Your task to perform on an android device: move an email to a new category in the gmail app Image 0: 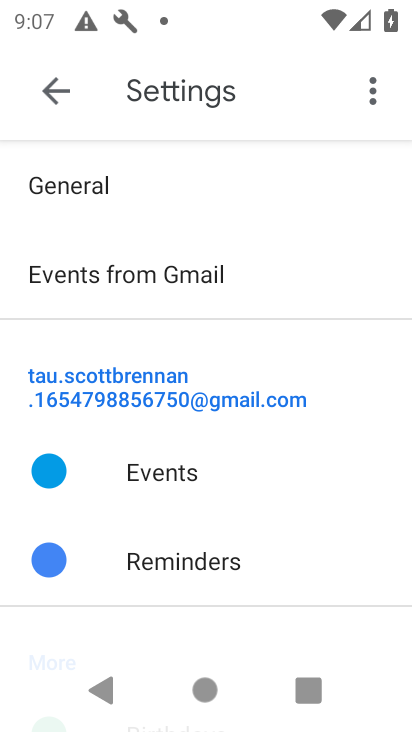
Step 0: click (60, 105)
Your task to perform on an android device: move an email to a new category in the gmail app Image 1: 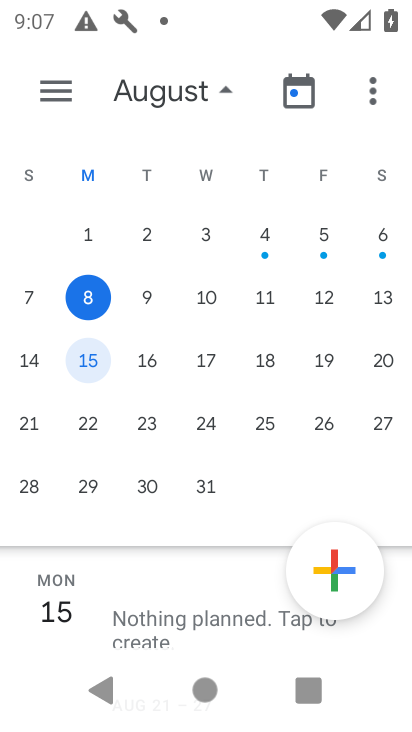
Step 1: press back button
Your task to perform on an android device: move an email to a new category in the gmail app Image 2: 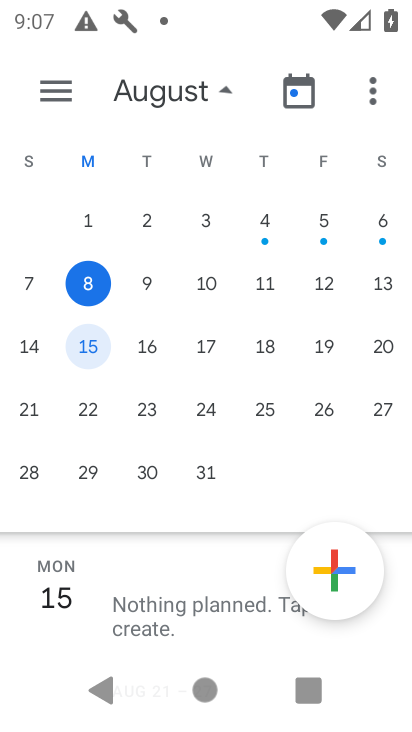
Step 2: press back button
Your task to perform on an android device: move an email to a new category in the gmail app Image 3: 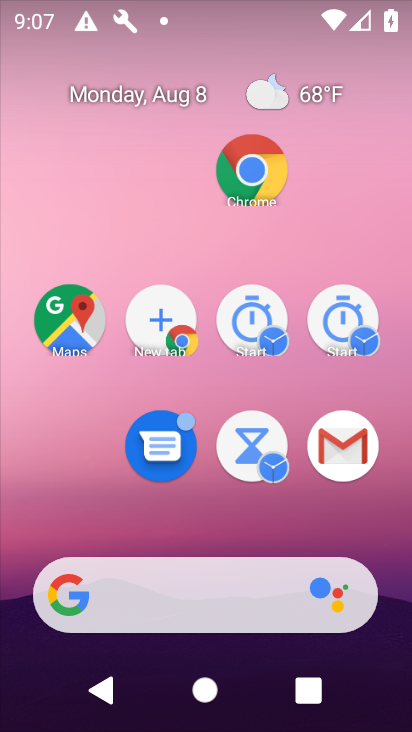
Step 3: drag from (213, 510) to (150, 70)
Your task to perform on an android device: move an email to a new category in the gmail app Image 4: 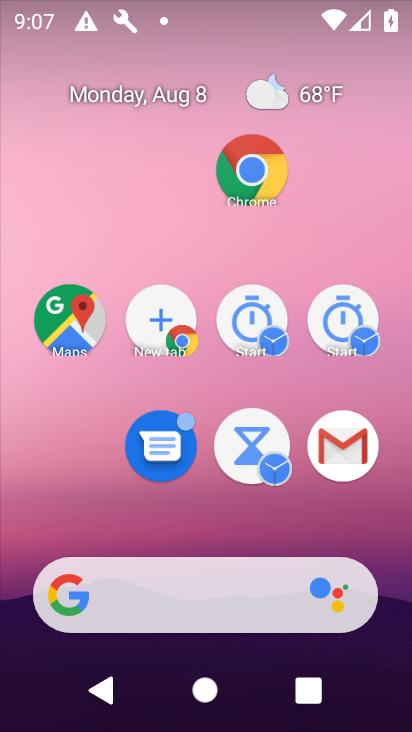
Step 4: drag from (250, 394) to (227, 187)
Your task to perform on an android device: move an email to a new category in the gmail app Image 5: 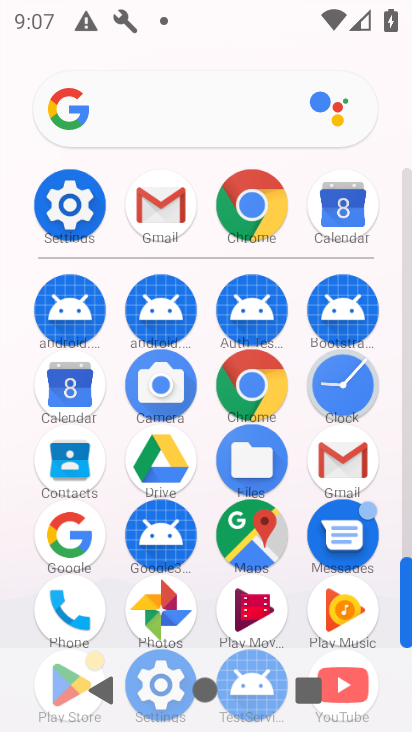
Step 5: click (342, 454)
Your task to perform on an android device: move an email to a new category in the gmail app Image 6: 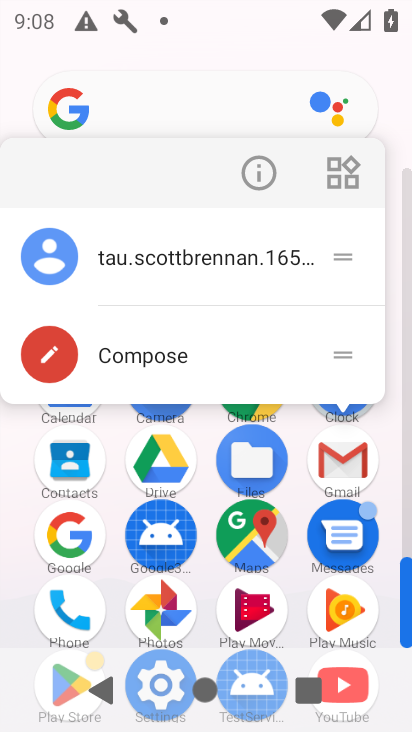
Step 6: click (338, 467)
Your task to perform on an android device: move an email to a new category in the gmail app Image 7: 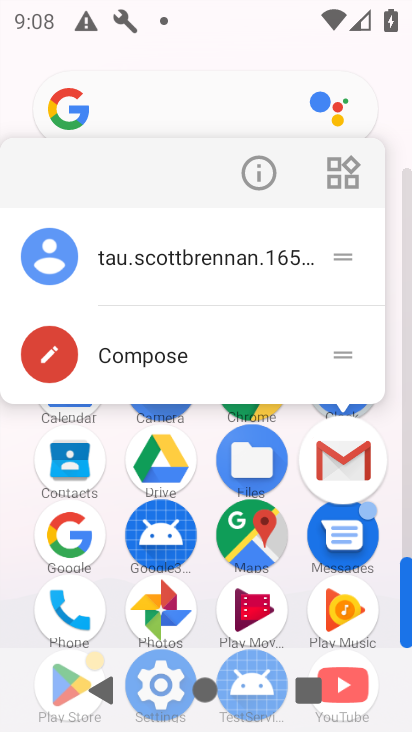
Step 7: click (341, 461)
Your task to perform on an android device: move an email to a new category in the gmail app Image 8: 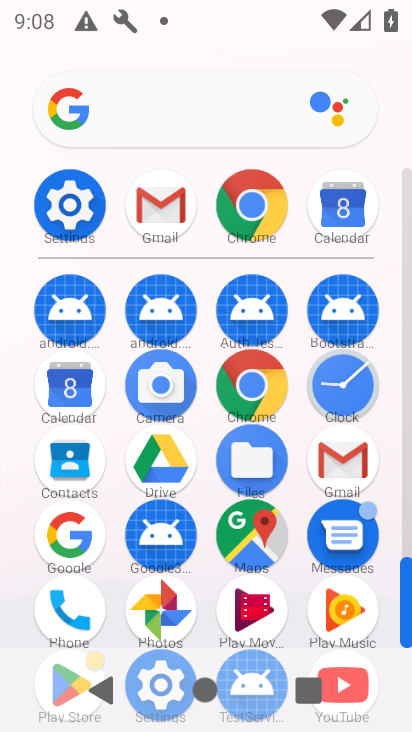
Step 8: click (344, 462)
Your task to perform on an android device: move an email to a new category in the gmail app Image 9: 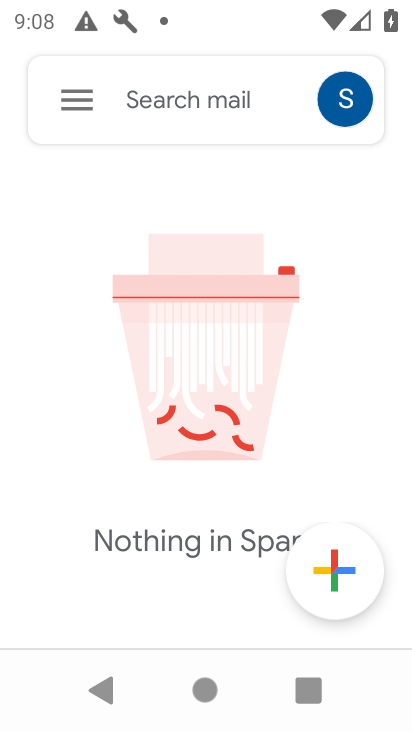
Step 9: click (82, 95)
Your task to perform on an android device: move an email to a new category in the gmail app Image 10: 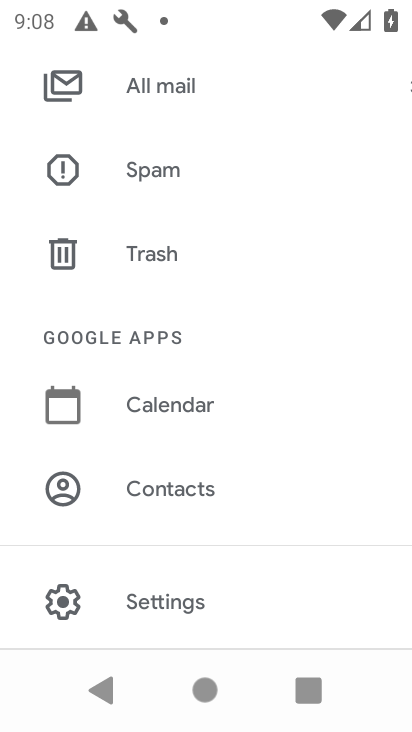
Step 10: drag from (164, 136) to (204, 263)
Your task to perform on an android device: move an email to a new category in the gmail app Image 11: 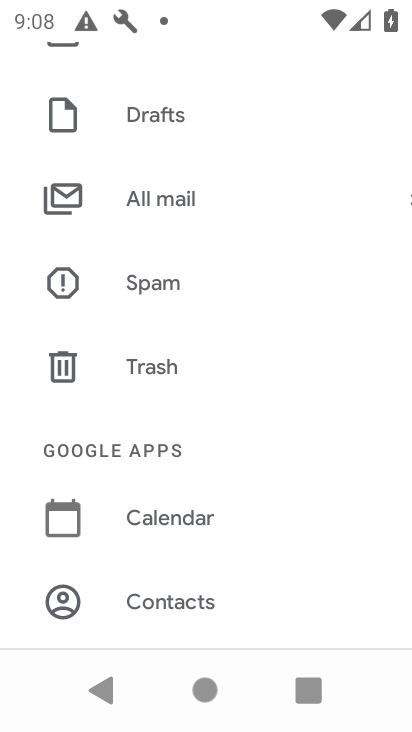
Step 11: click (158, 198)
Your task to perform on an android device: move an email to a new category in the gmail app Image 12: 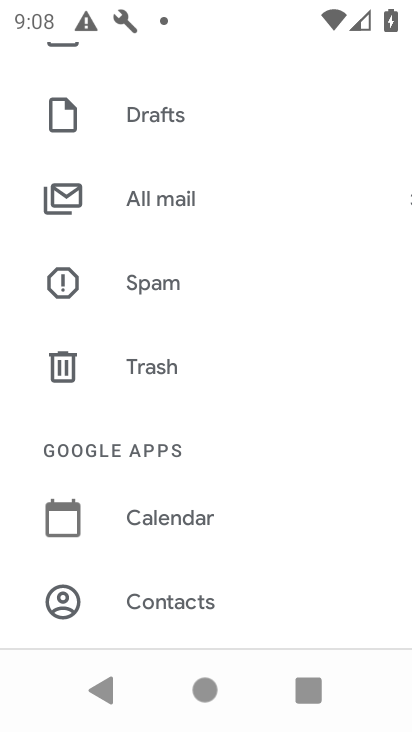
Step 12: click (158, 198)
Your task to perform on an android device: move an email to a new category in the gmail app Image 13: 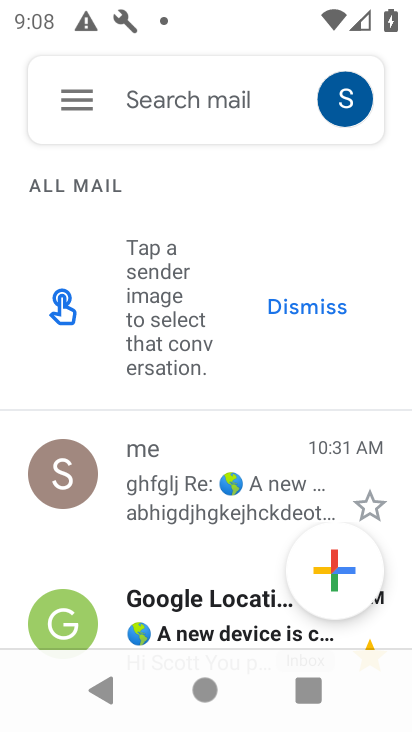
Step 13: drag from (197, 506) to (191, 305)
Your task to perform on an android device: move an email to a new category in the gmail app Image 14: 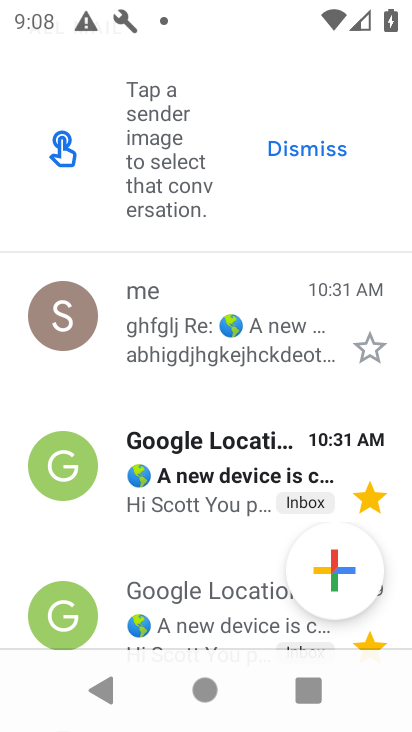
Step 14: click (367, 349)
Your task to perform on an android device: move an email to a new category in the gmail app Image 15: 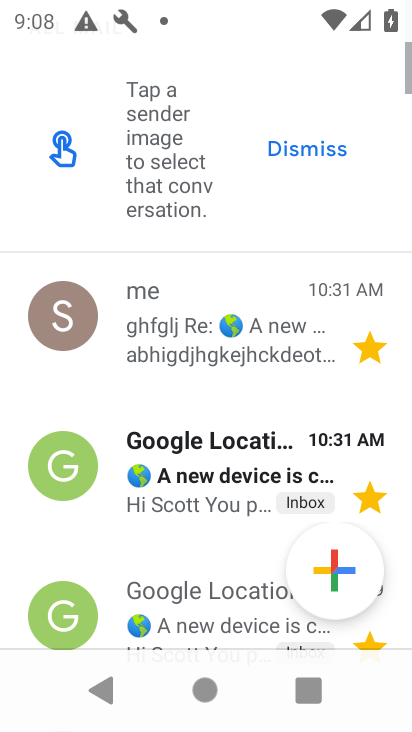
Step 15: task complete